Your task to perform on an android device: snooze an email in the gmail app Image 0: 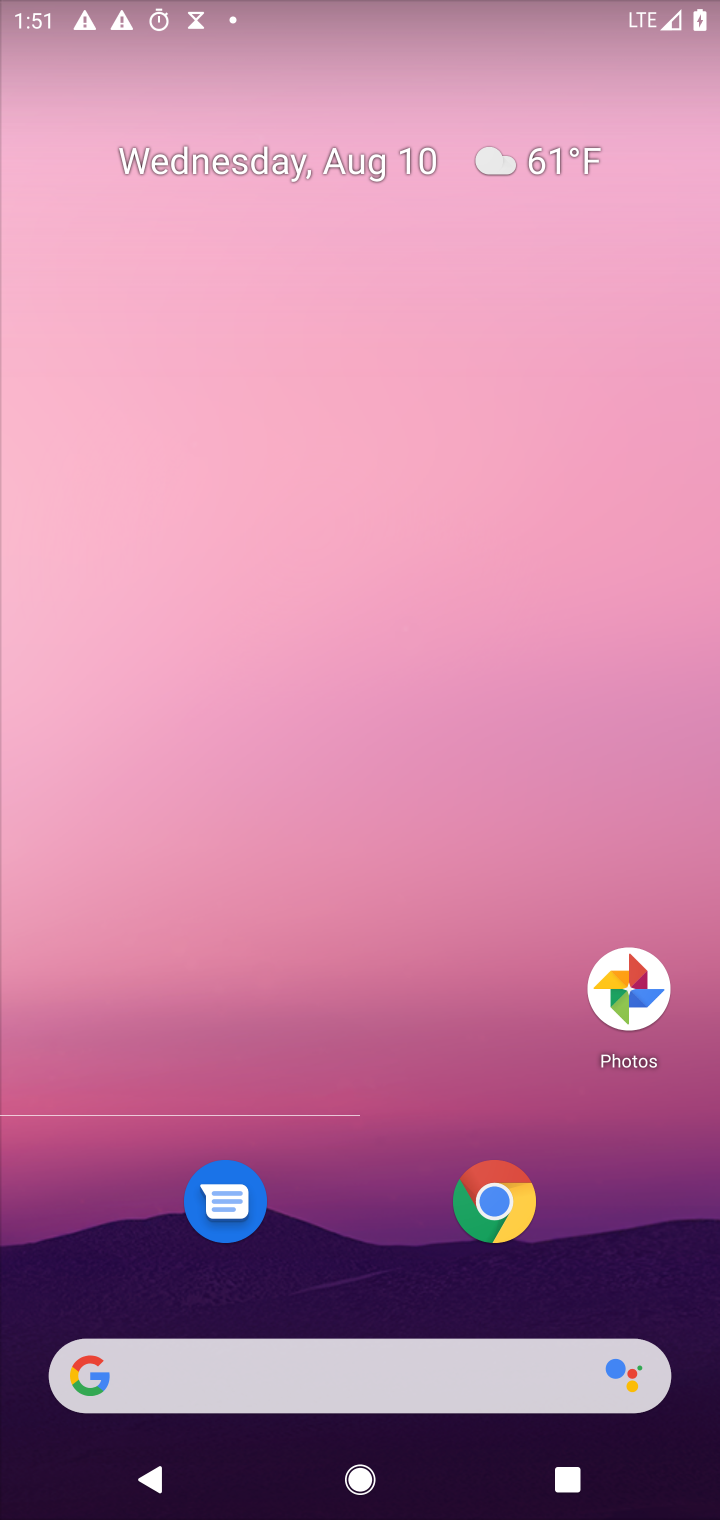
Step 0: press home button
Your task to perform on an android device: snooze an email in the gmail app Image 1: 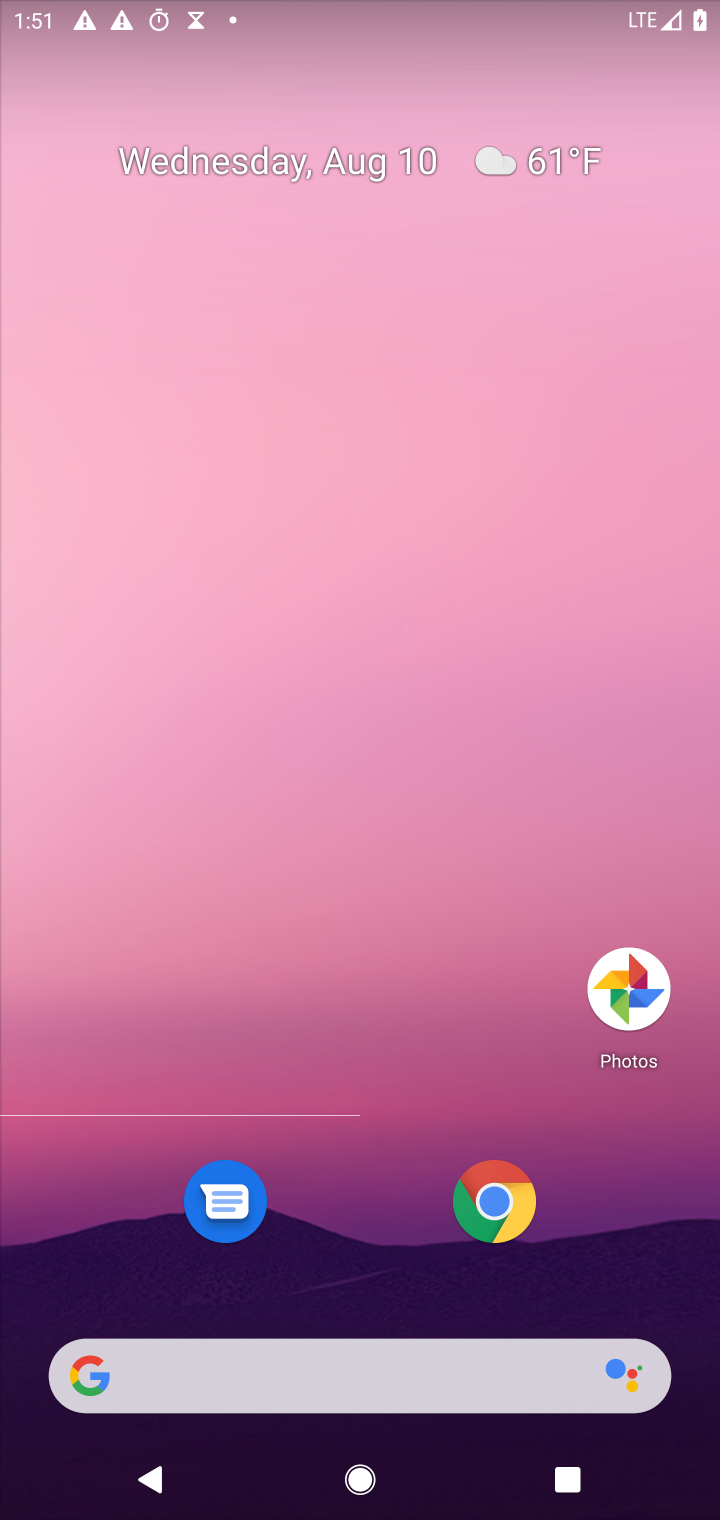
Step 1: drag from (235, 936) to (296, 137)
Your task to perform on an android device: snooze an email in the gmail app Image 2: 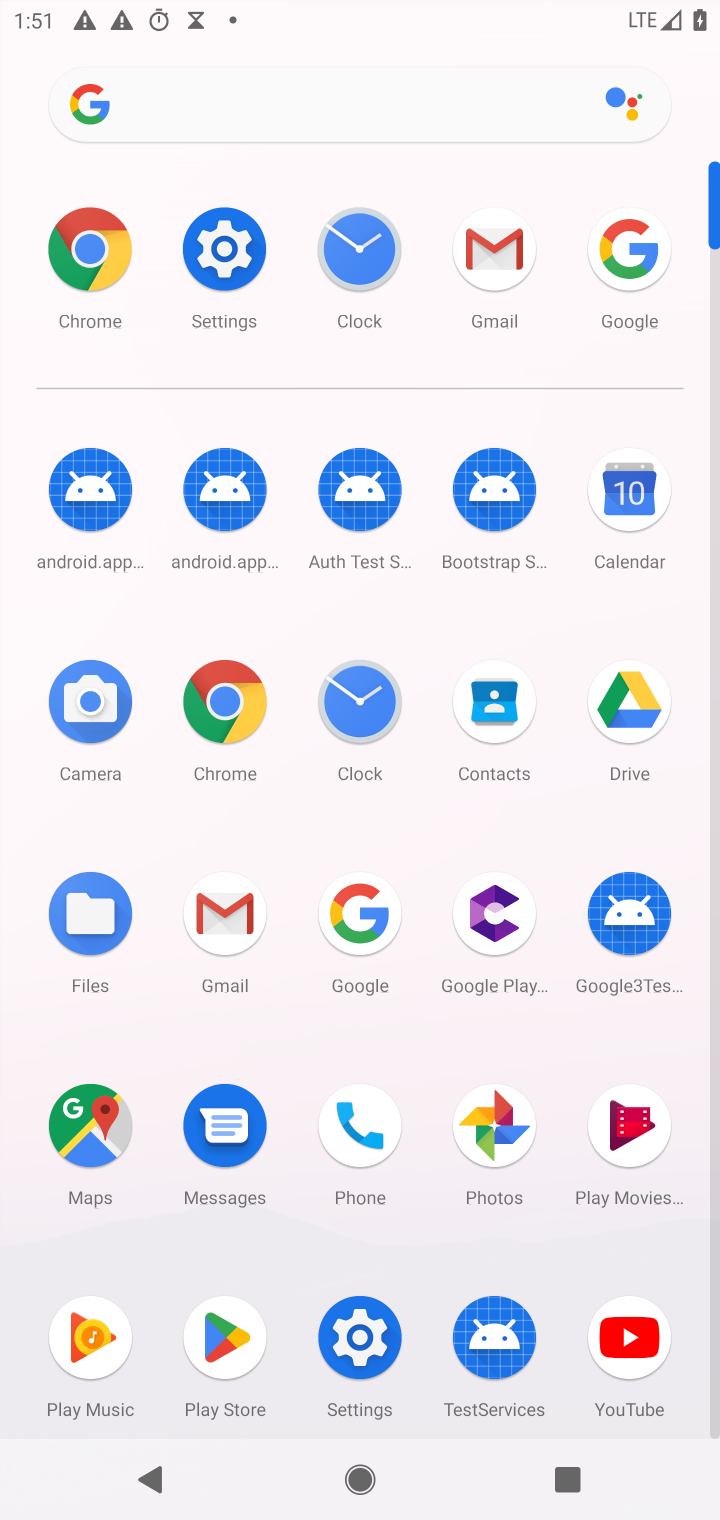
Step 2: click (494, 250)
Your task to perform on an android device: snooze an email in the gmail app Image 3: 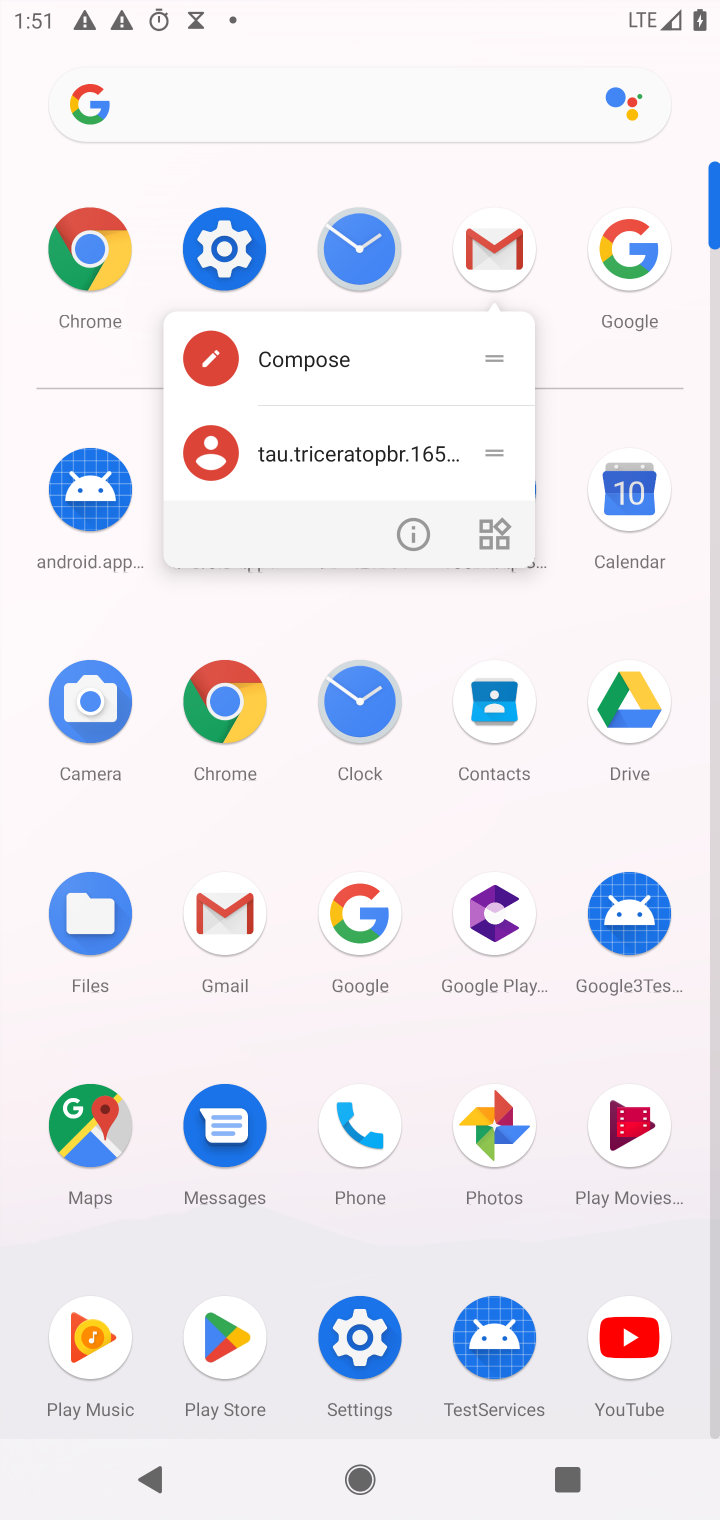
Step 3: click (494, 250)
Your task to perform on an android device: snooze an email in the gmail app Image 4: 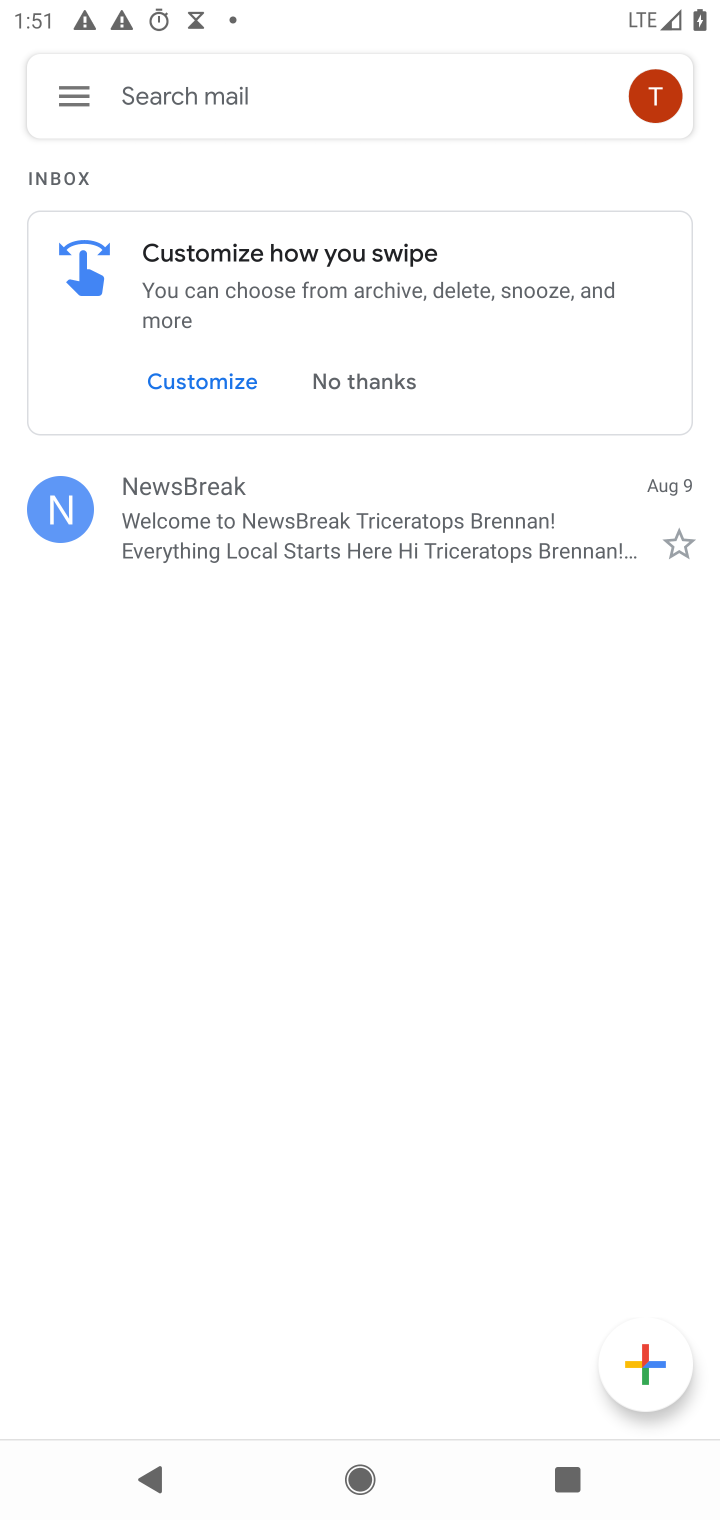
Step 4: click (77, 99)
Your task to perform on an android device: snooze an email in the gmail app Image 5: 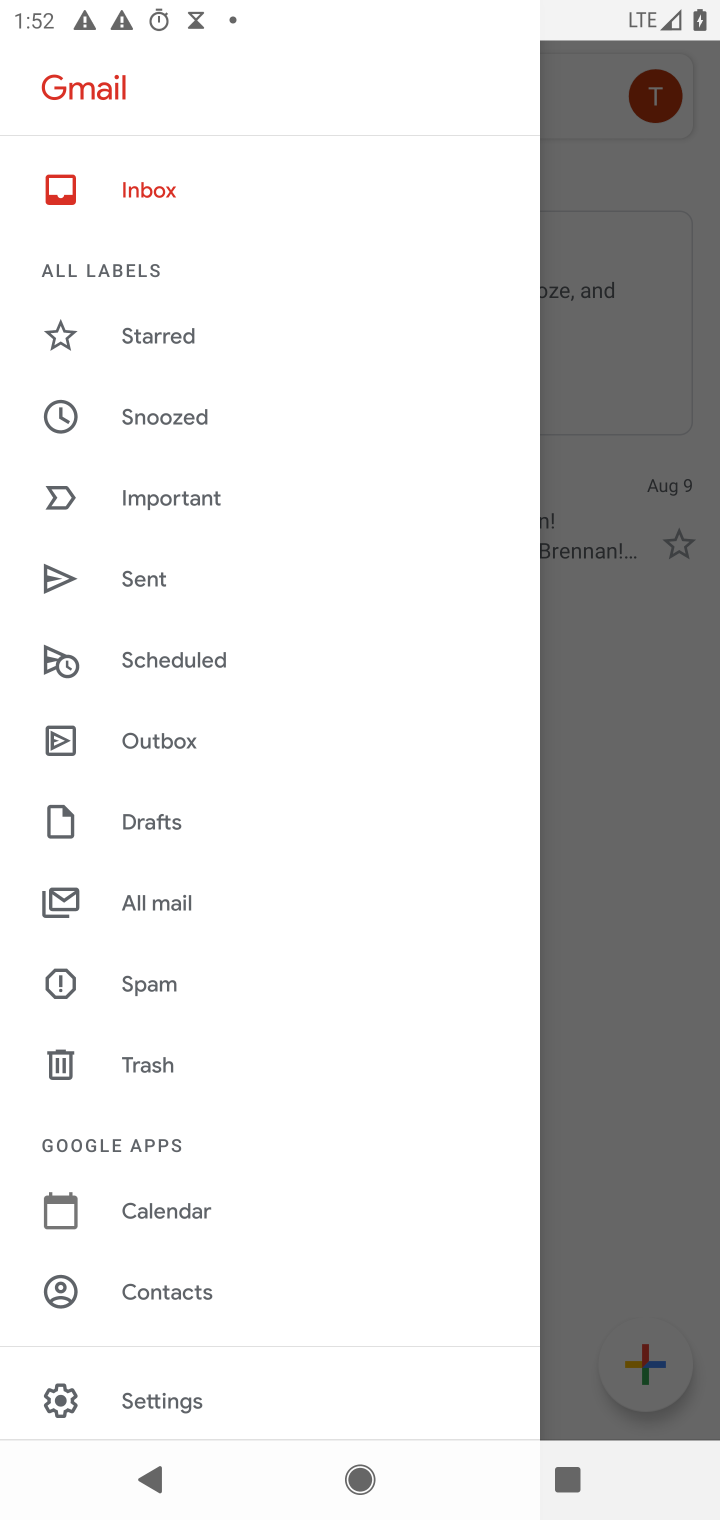
Step 5: click (133, 907)
Your task to perform on an android device: snooze an email in the gmail app Image 6: 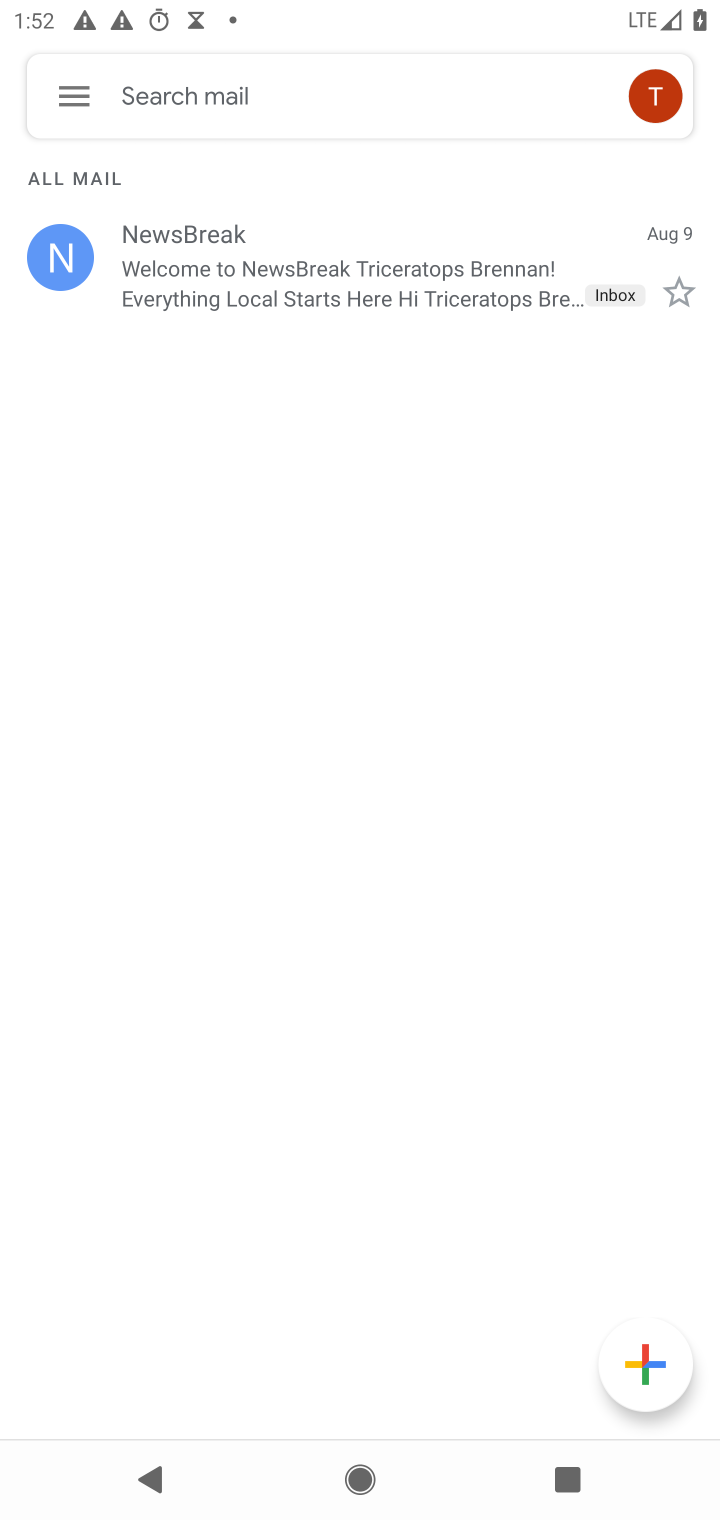
Step 6: click (369, 283)
Your task to perform on an android device: snooze an email in the gmail app Image 7: 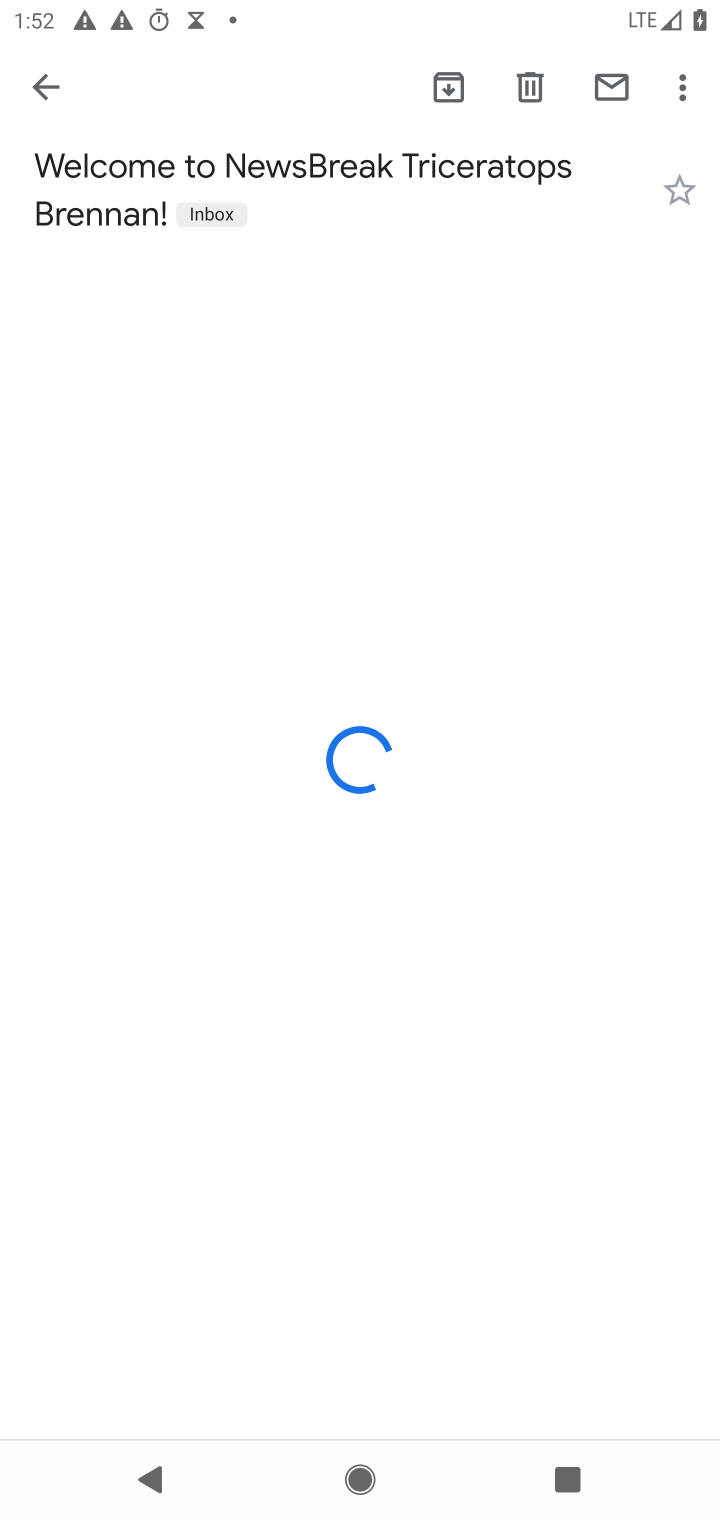
Step 7: click (680, 113)
Your task to perform on an android device: snooze an email in the gmail app Image 8: 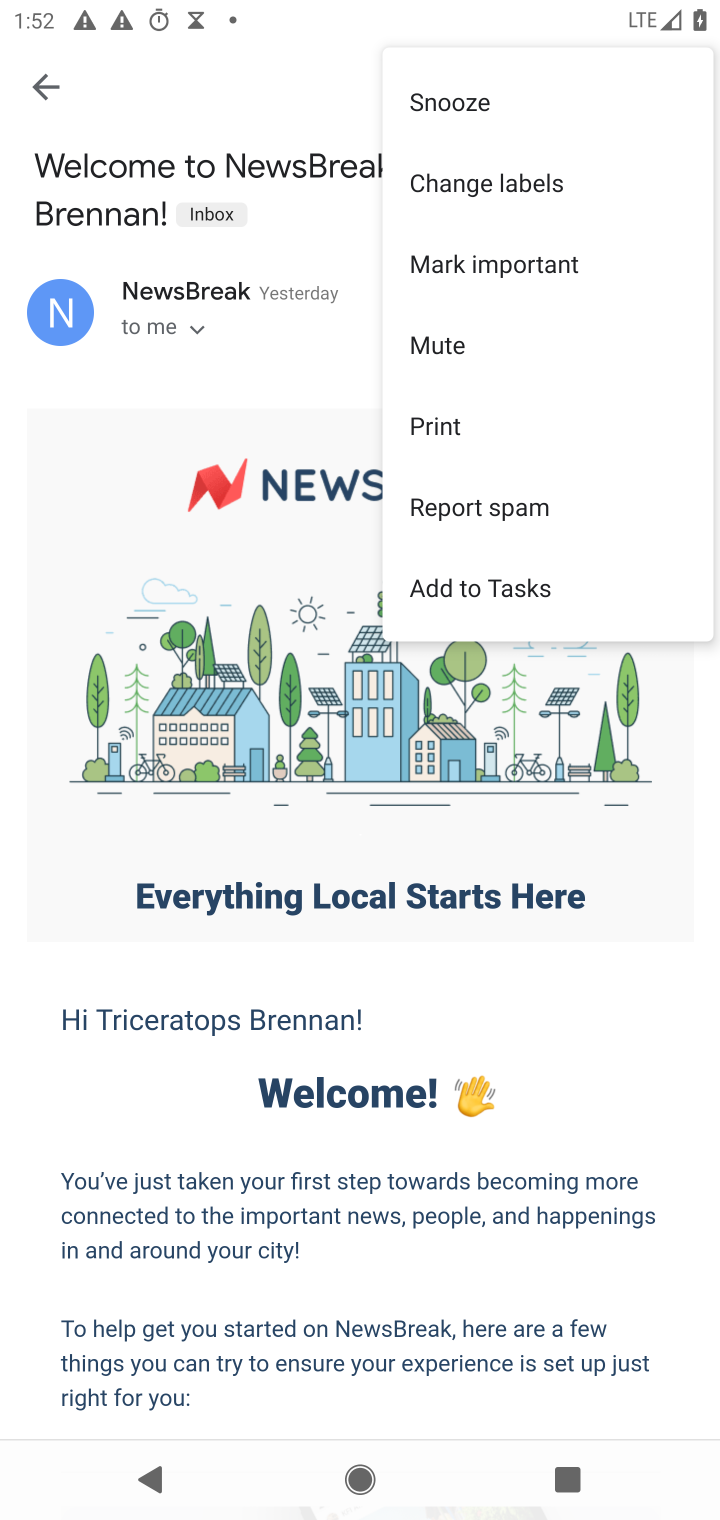
Step 8: click (442, 106)
Your task to perform on an android device: snooze an email in the gmail app Image 9: 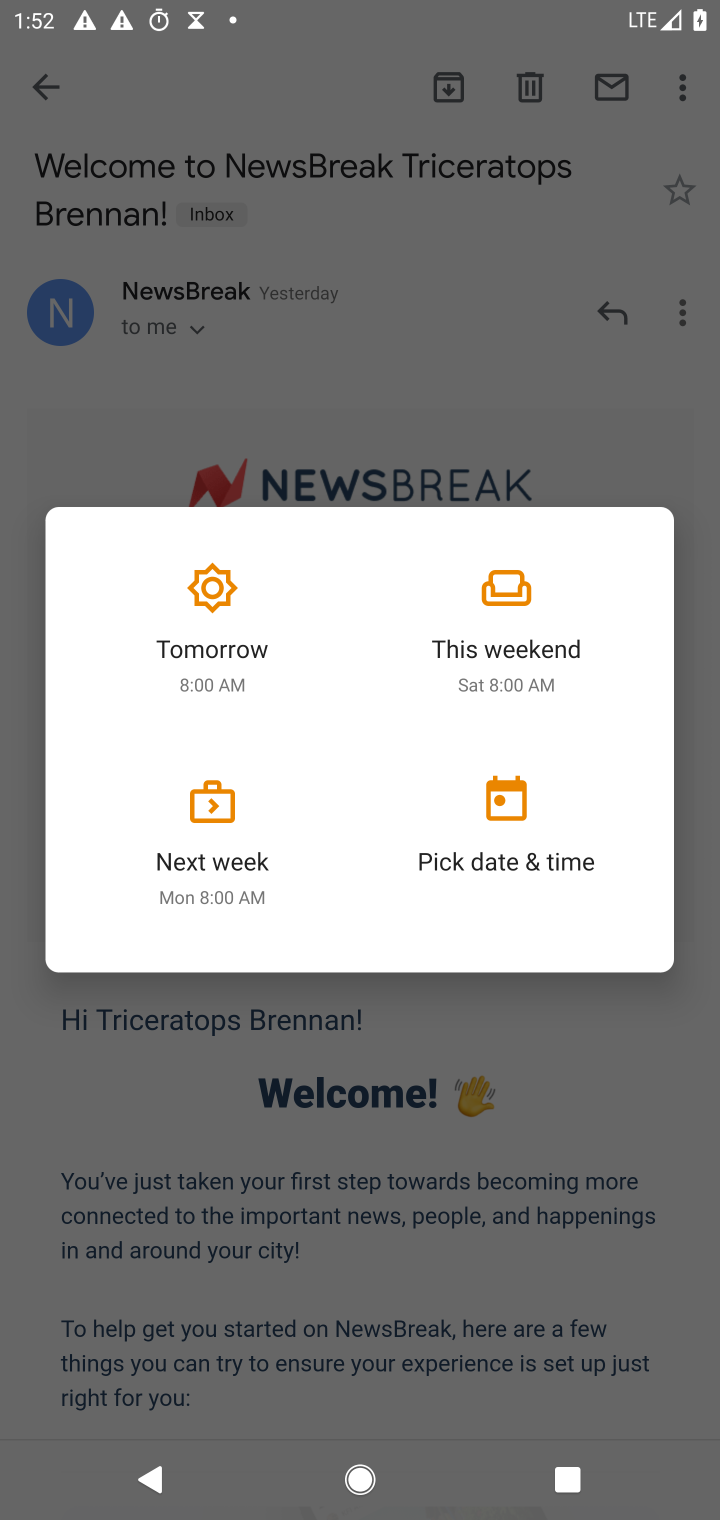
Step 9: click (210, 590)
Your task to perform on an android device: snooze an email in the gmail app Image 10: 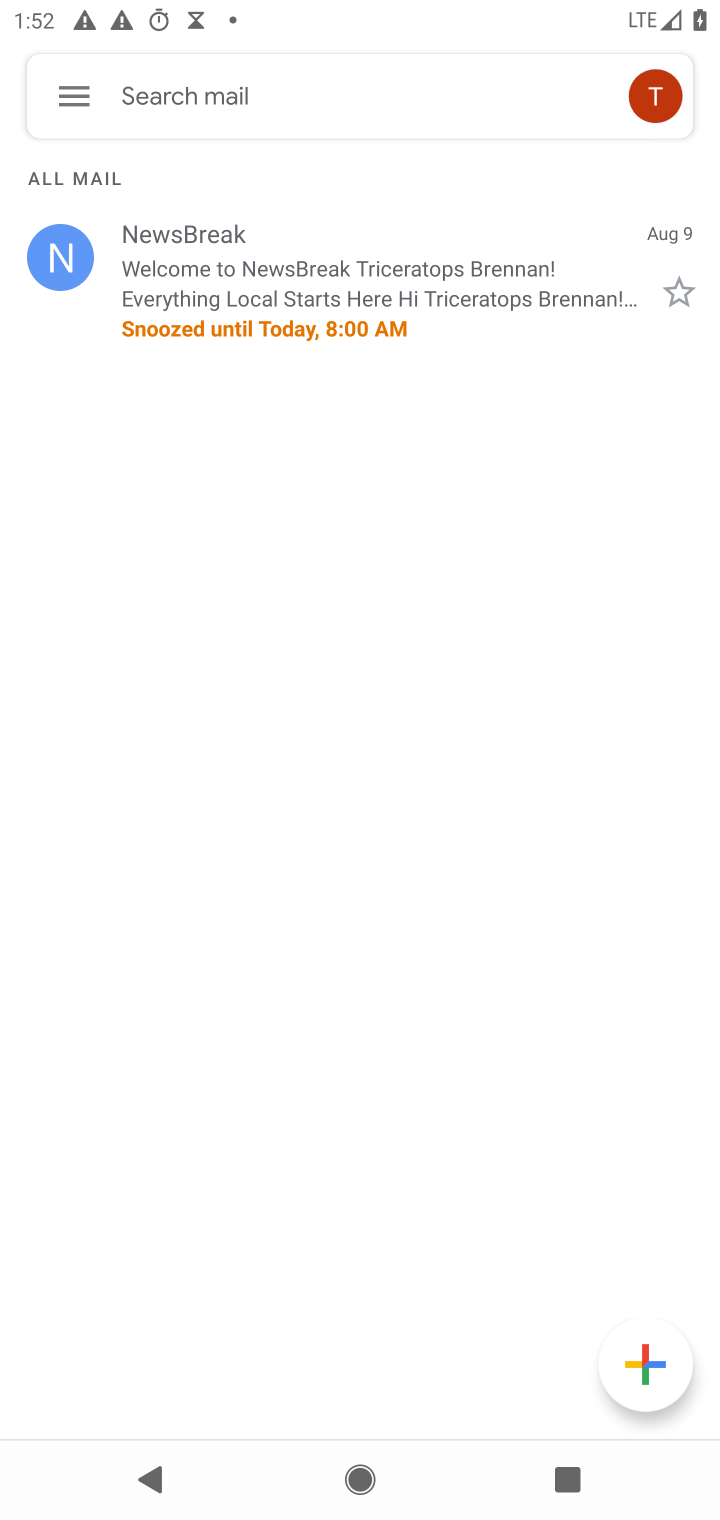
Step 10: task complete